Your task to perform on an android device: change the clock style Image 0: 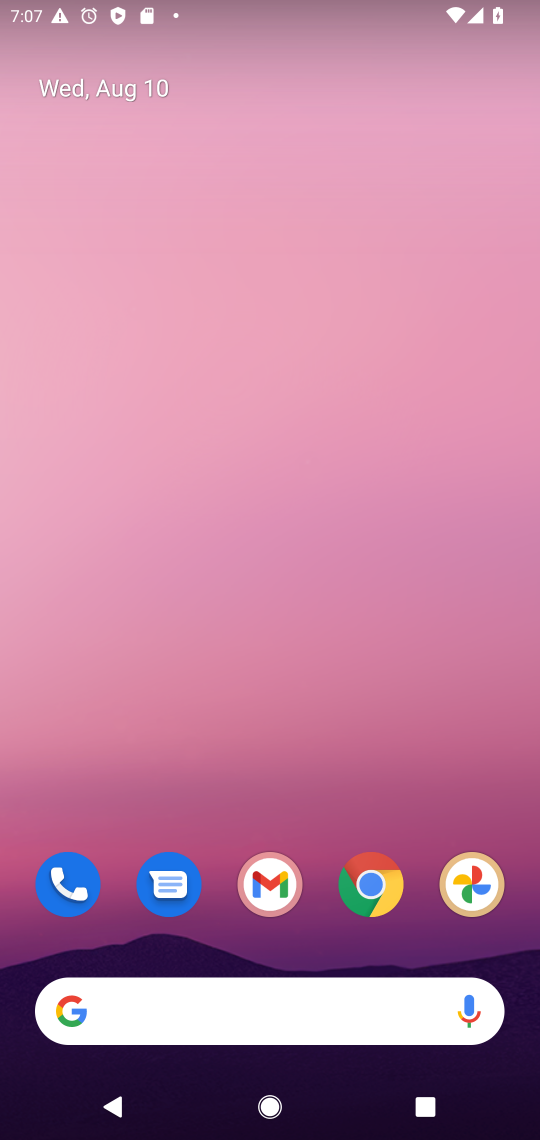
Step 0: drag from (317, 732) to (369, 542)
Your task to perform on an android device: change the clock style Image 1: 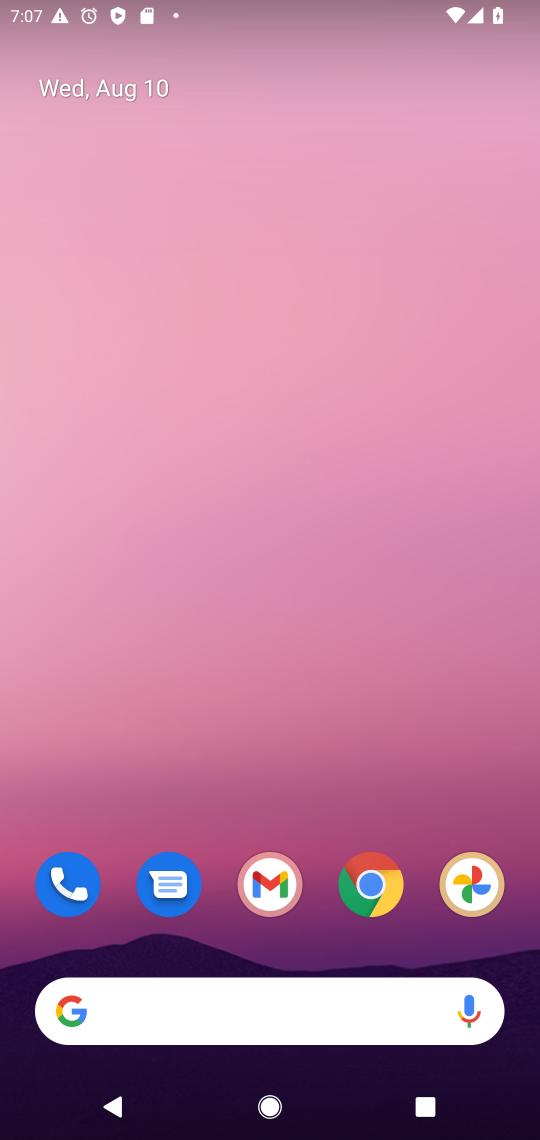
Step 1: drag from (109, 916) to (242, 451)
Your task to perform on an android device: change the clock style Image 2: 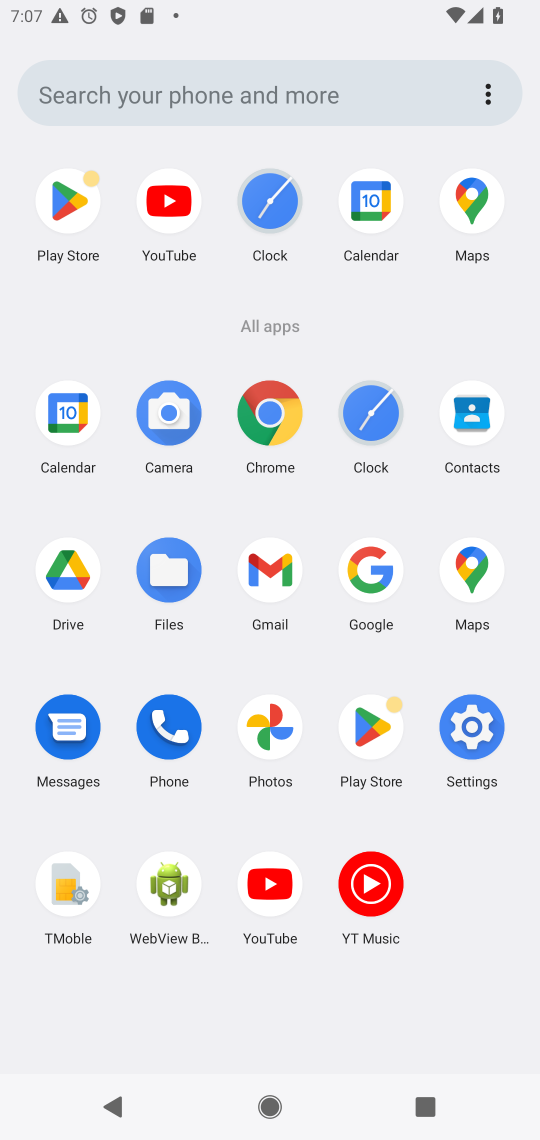
Step 2: click (358, 406)
Your task to perform on an android device: change the clock style Image 3: 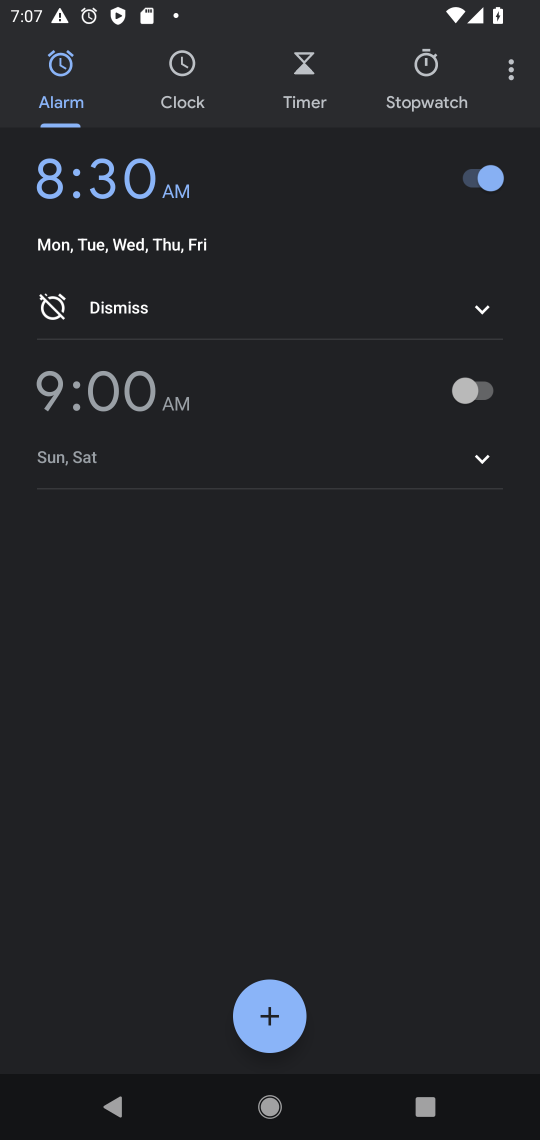
Step 3: click (172, 76)
Your task to perform on an android device: change the clock style Image 4: 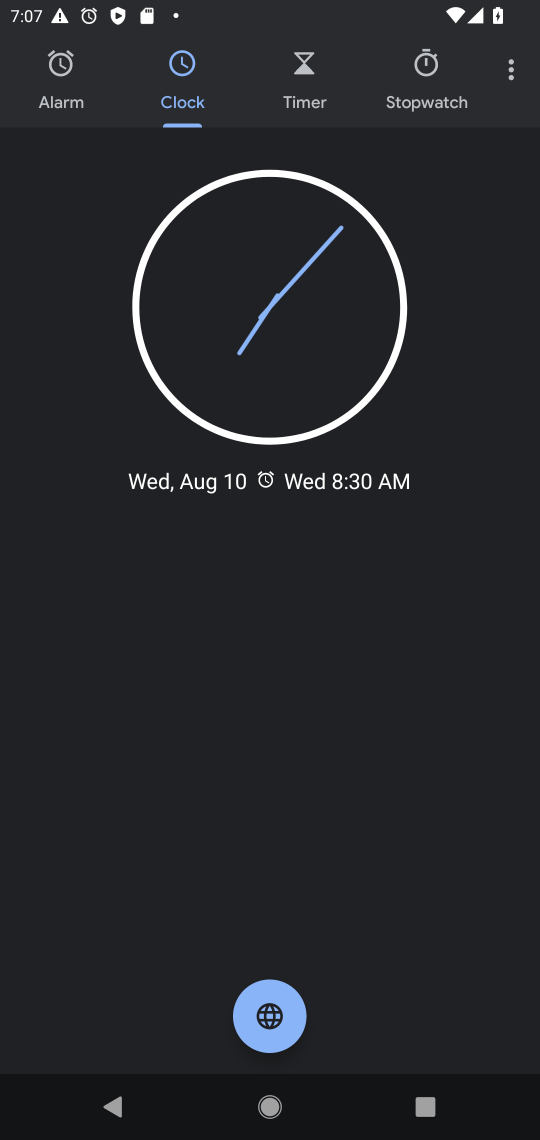
Step 4: click (504, 68)
Your task to perform on an android device: change the clock style Image 5: 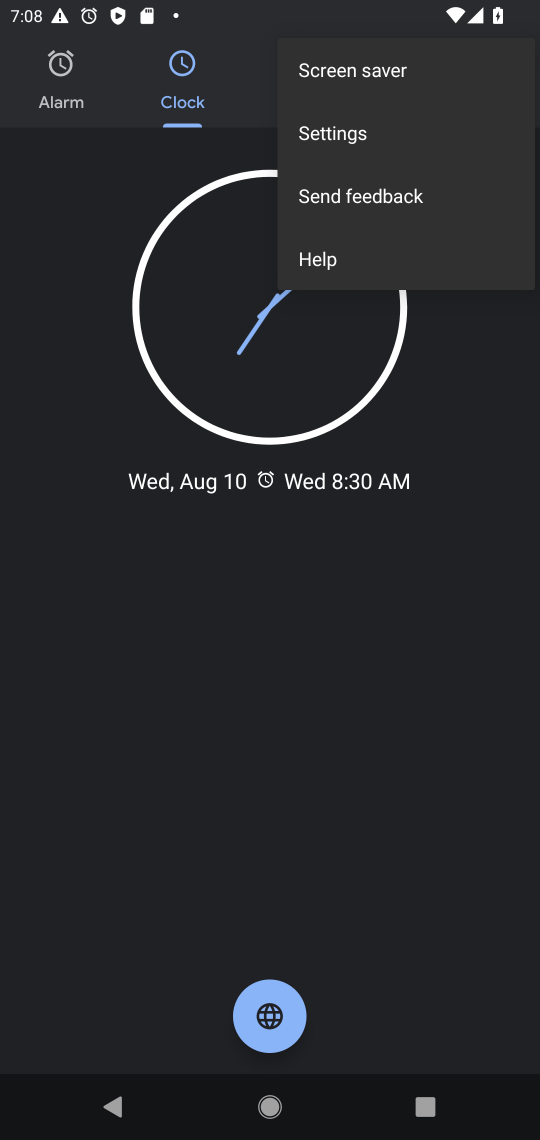
Step 5: click (323, 140)
Your task to perform on an android device: change the clock style Image 6: 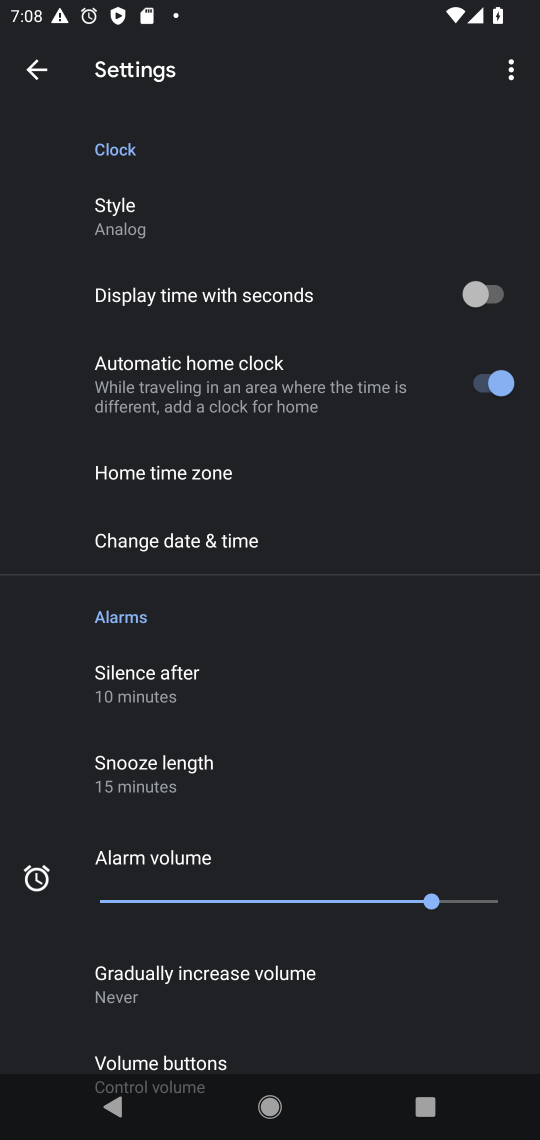
Step 6: click (140, 249)
Your task to perform on an android device: change the clock style Image 7: 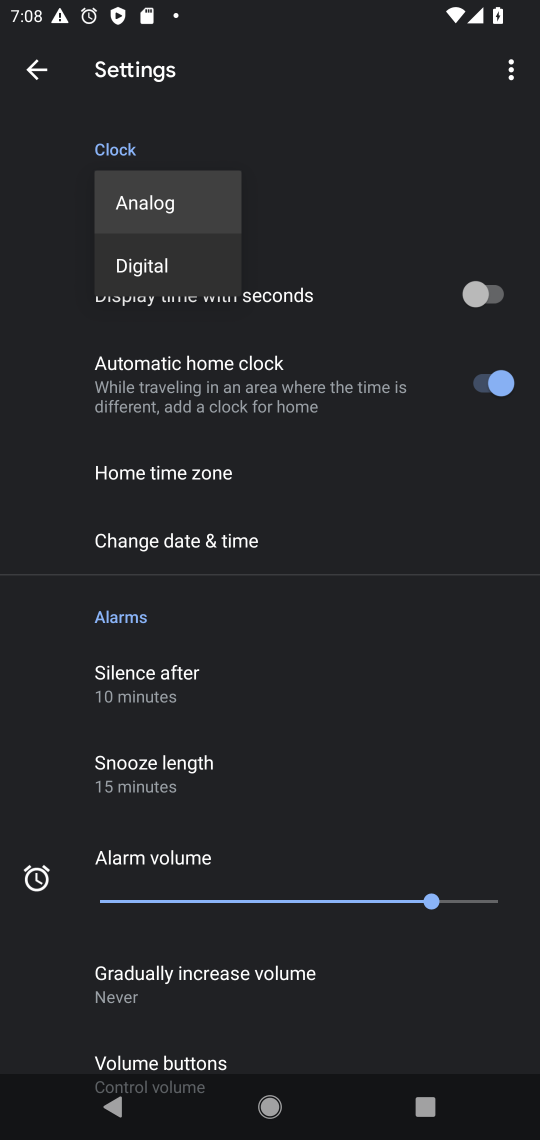
Step 7: click (141, 265)
Your task to perform on an android device: change the clock style Image 8: 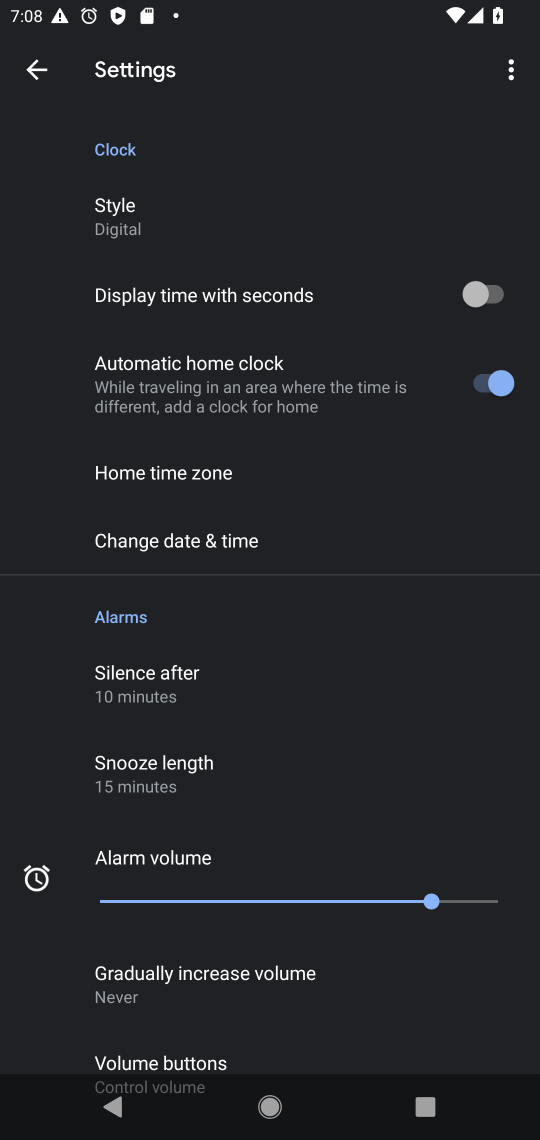
Step 8: task complete